Your task to perform on an android device: turn on improve location accuracy Image 0: 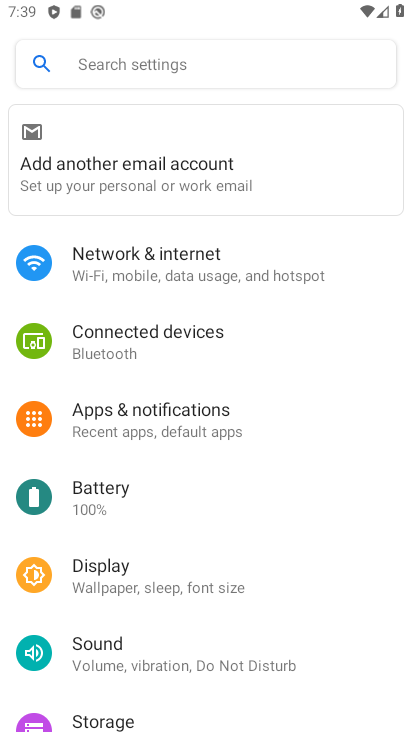
Step 0: drag from (132, 646) to (161, 166)
Your task to perform on an android device: turn on improve location accuracy Image 1: 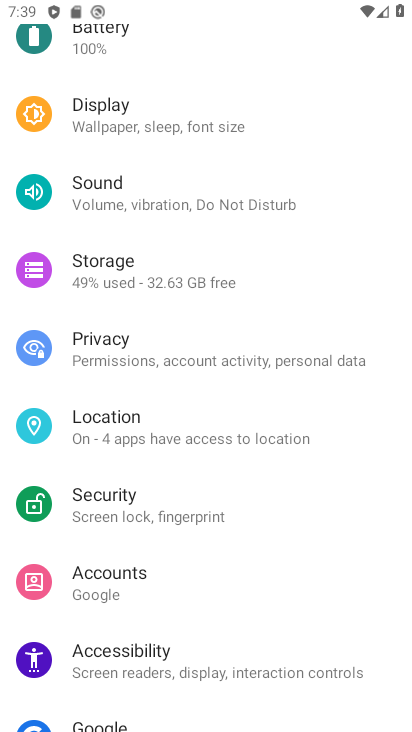
Step 1: click (101, 429)
Your task to perform on an android device: turn on improve location accuracy Image 2: 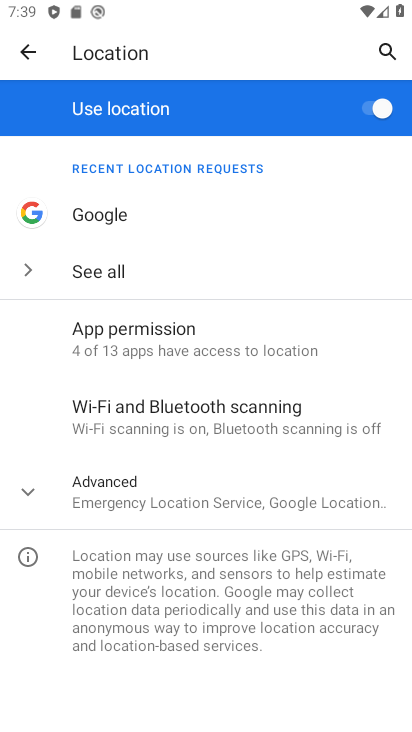
Step 2: click (170, 506)
Your task to perform on an android device: turn on improve location accuracy Image 3: 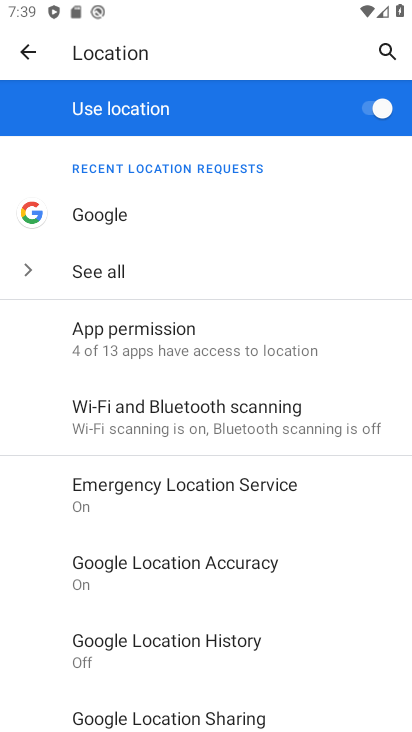
Step 3: click (166, 579)
Your task to perform on an android device: turn on improve location accuracy Image 4: 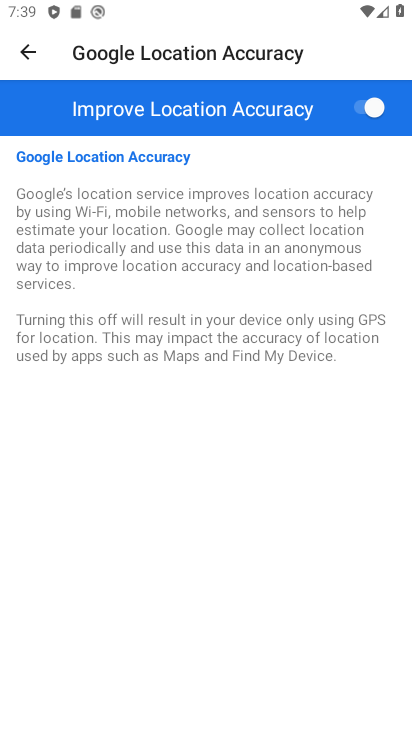
Step 4: task complete